Your task to perform on an android device: Play the last video I watched on Youtube Image 0: 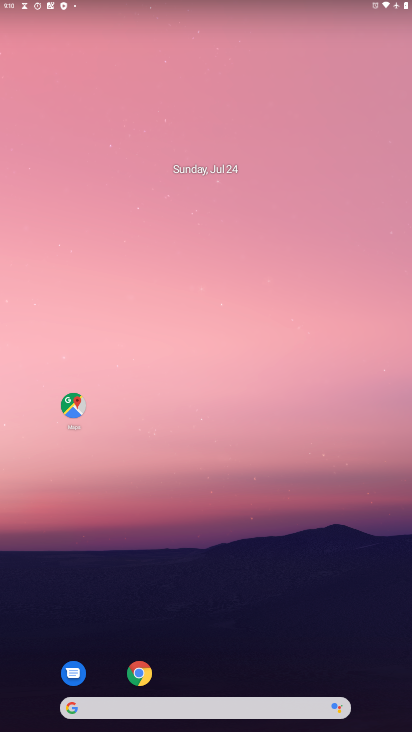
Step 0: drag from (176, 689) to (199, 133)
Your task to perform on an android device: Play the last video I watched on Youtube Image 1: 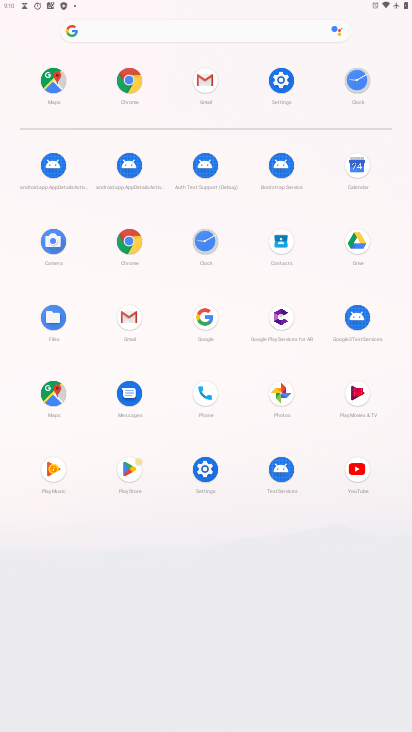
Step 1: click (360, 465)
Your task to perform on an android device: Play the last video I watched on Youtube Image 2: 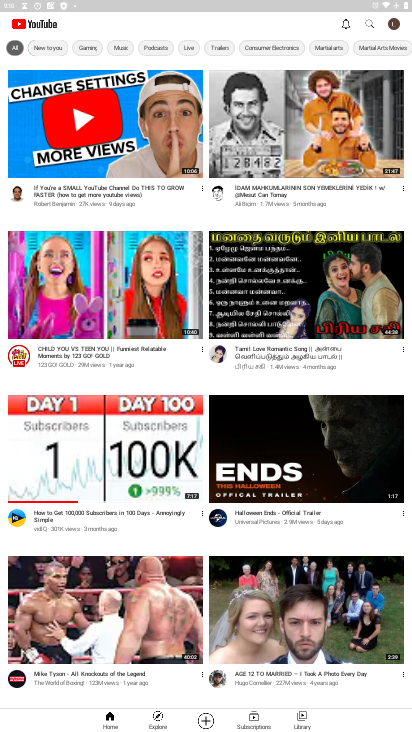
Step 2: click (302, 715)
Your task to perform on an android device: Play the last video I watched on Youtube Image 3: 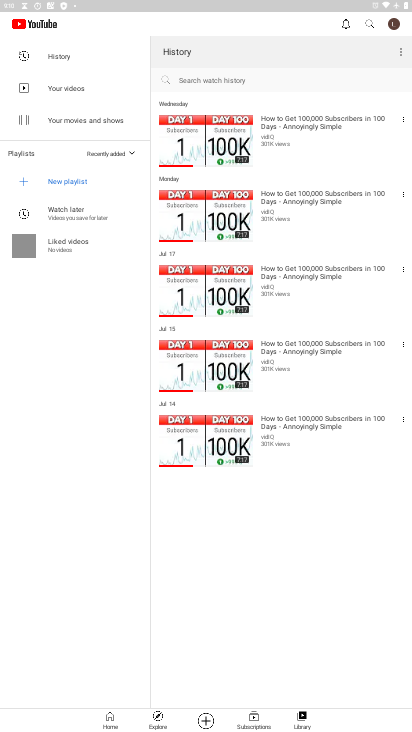
Step 3: click (38, 61)
Your task to perform on an android device: Play the last video I watched on Youtube Image 4: 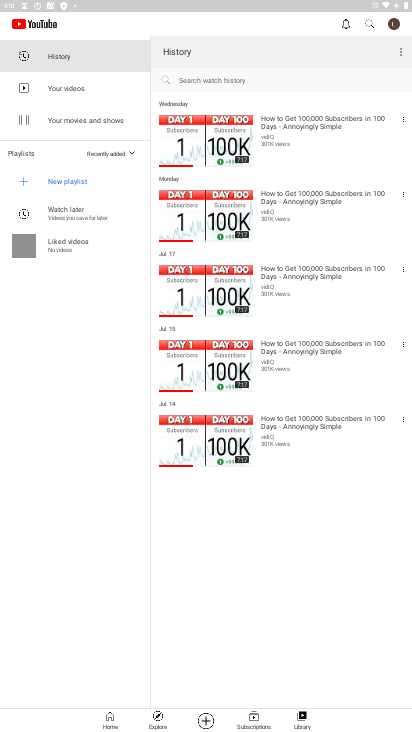
Step 4: click (209, 119)
Your task to perform on an android device: Play the last video I watched on Youtube Image 5: 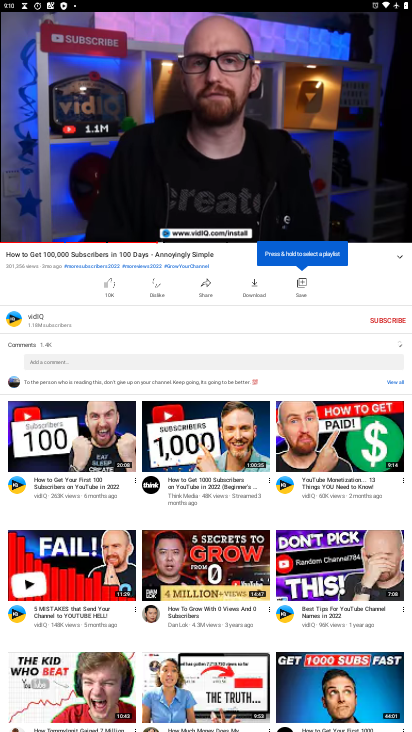
Step 5: task complete